Your task to perform on an android device: change timer sound Image 0: 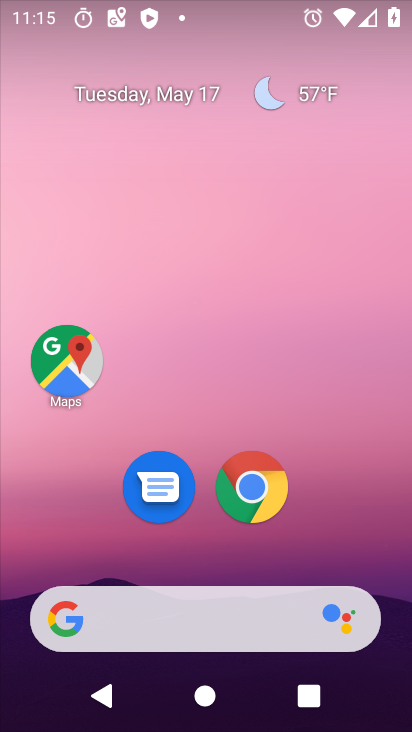
Step 0: drag from (228, 725) to (226, 41)
Your task to perform on an android device: change timer sound Image 1: 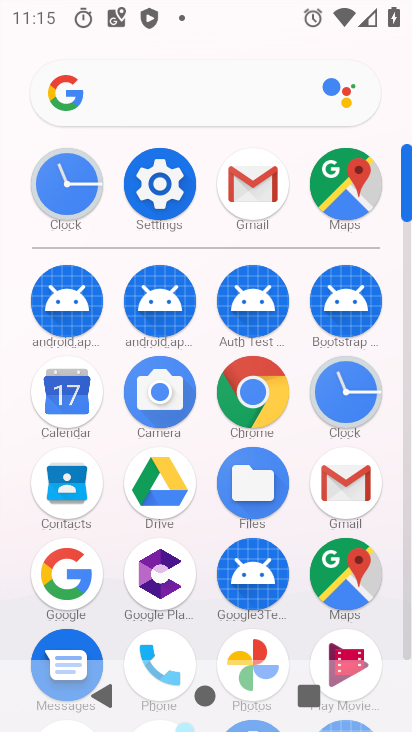
Step 1: click (62, 189)
Your task to perform on an android device: change timer sound Image 2: 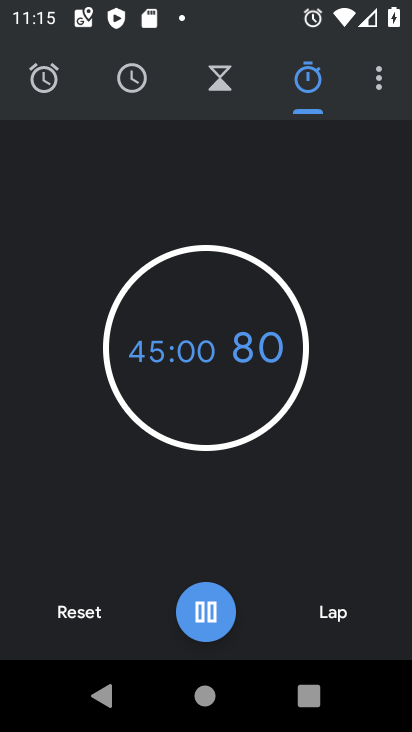
Step 2: click (381, 88)
Your task to perform on an android device: change timer sound Image 3: 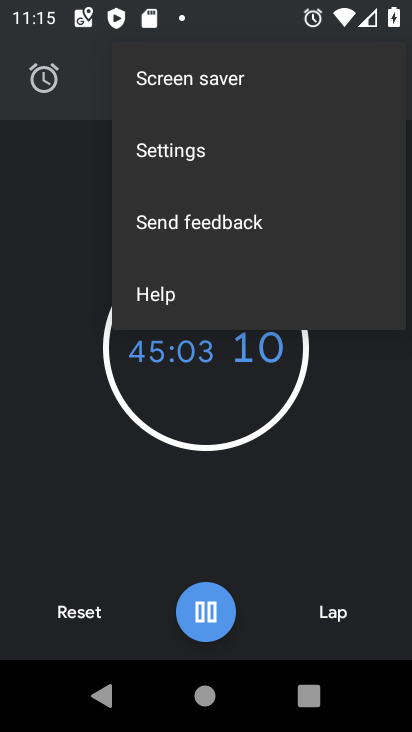
Step 3: click (172, 157)
Your task to perform on an android device: change timer sound Image 4: 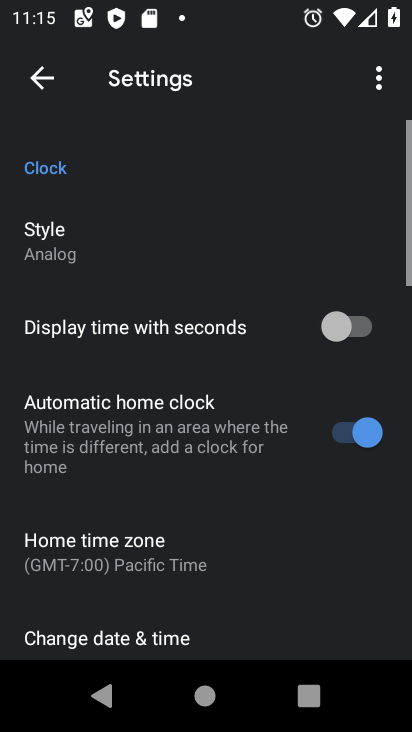
Step 4: drag from (191, 210) to (262, 602)
Your task to perform on an android device: change timer sound Image 5: 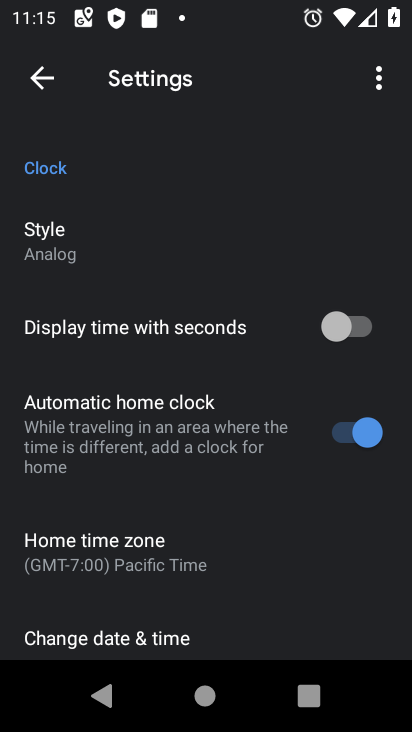
Step 5: drag from (199, 614) to (212, 277)
Your task to perform on an android device: change timer sound Image 6: 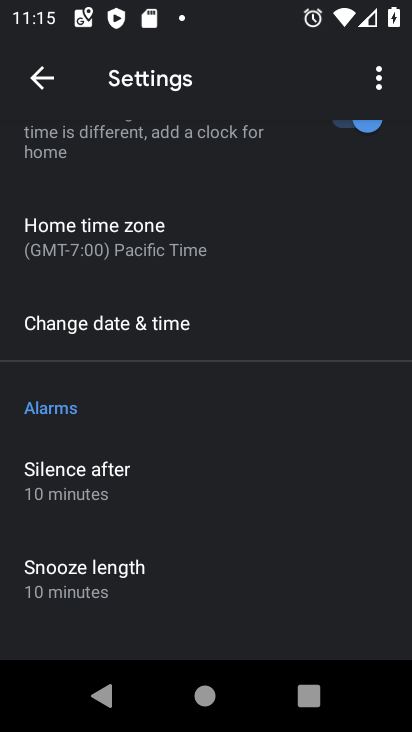
Step 6: drag from (166, 545) to (176, 320)
Your task to perform on an android device: change timer sound Image 7: 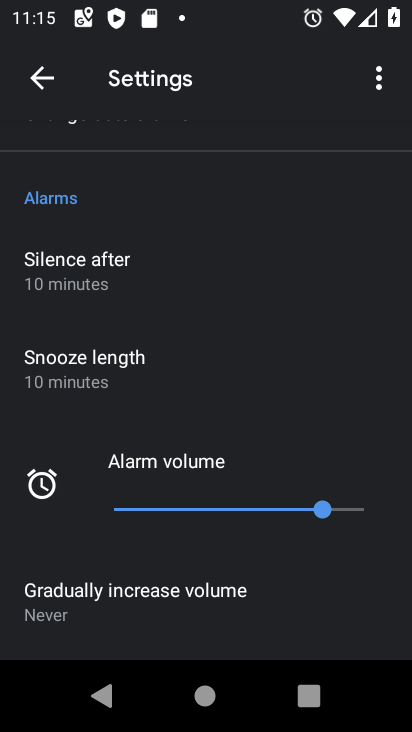
Step 7: drag from (109, 606) to (122, 336)
Your task to perform on an android device: change timer sound Image 8: 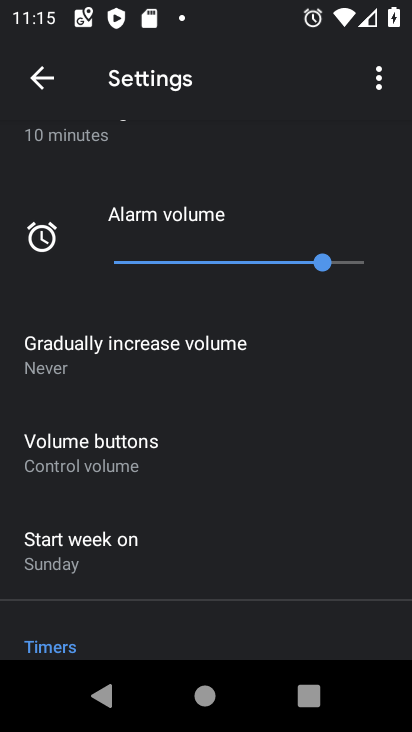
Step 8: drag from (125, 602) to (125, 305)
Your task to perform on an android device: change timer sound Image 9: 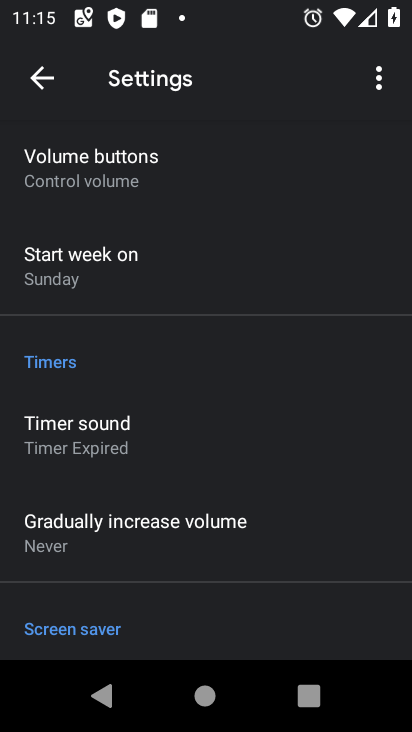
Step 9: click (94, 441)
Your task to perform on an android device: change timer sound Image 10: 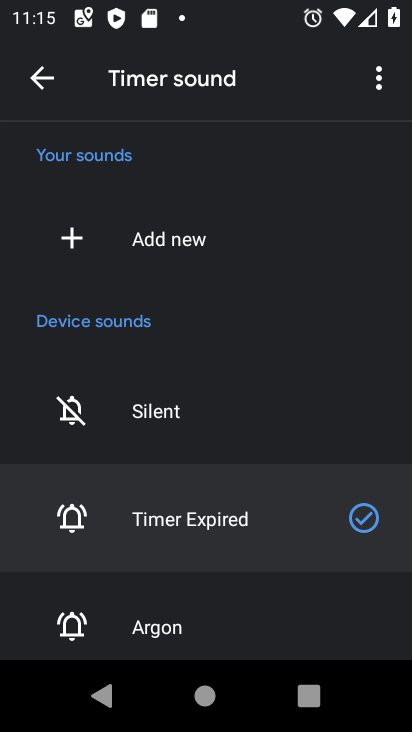
Step 10: drag from (198, 603) to (213, 285)
Your task to perform on an android device: change timer sound Image 11: 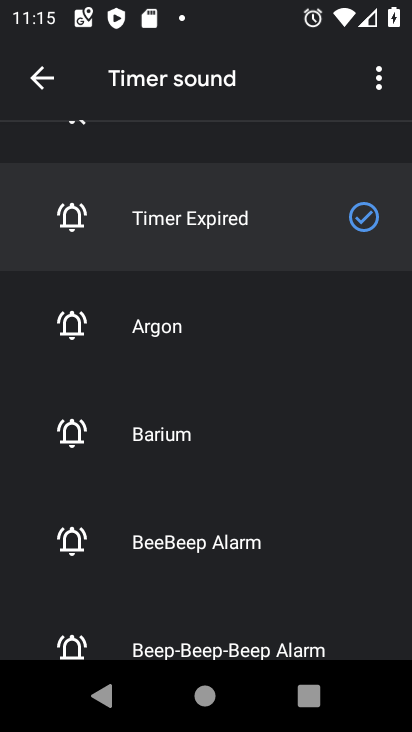
Step 11: click (177, 538)
Your task to perform on an android device: change timer sound Image 12: 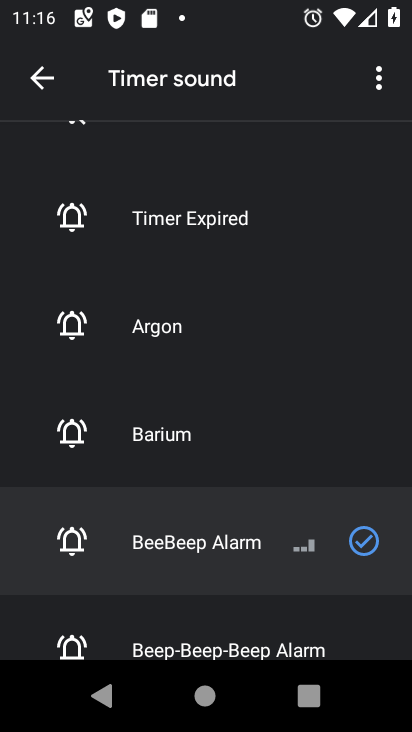
Step 12: task complete